Your task to perform on an android device: Go to wifi settings Image 0: 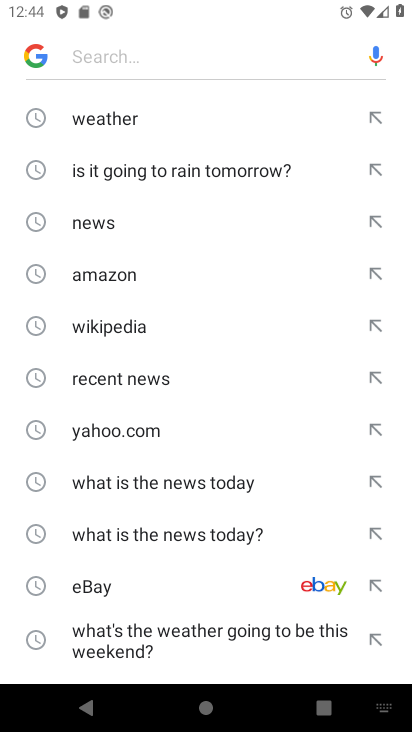
Step 0: press back button
Your task to perform on an android device: Go to wifi settings Image 1: 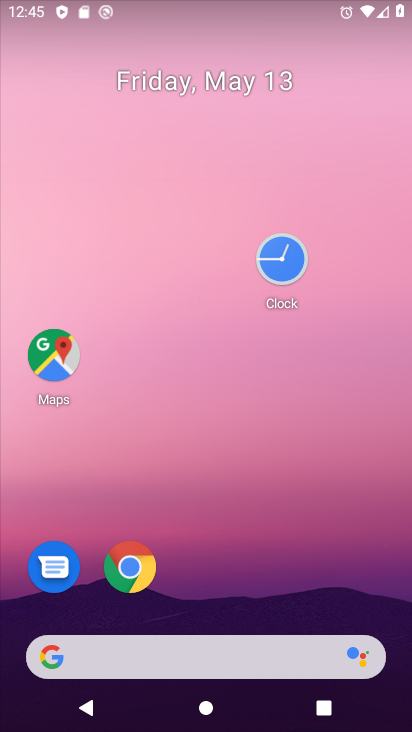
Step 1: drag from (207, 583) to (208, 107)
Your task to perform on an android device: Go to wifi settings Image 2: 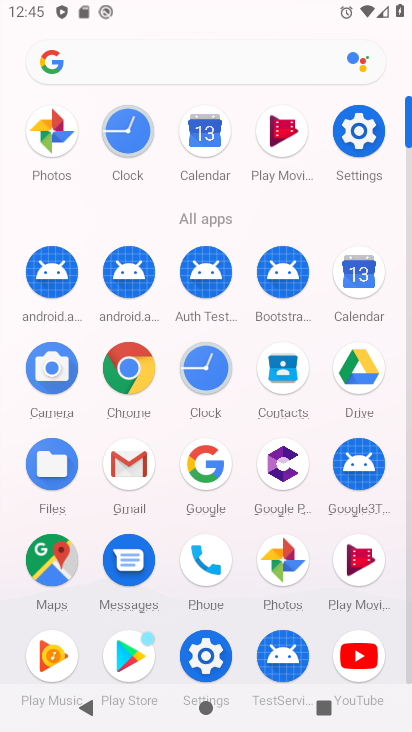
Step 2: click (339, 167)
Your task to perform on an android device: Go to wifi settings Image 3: 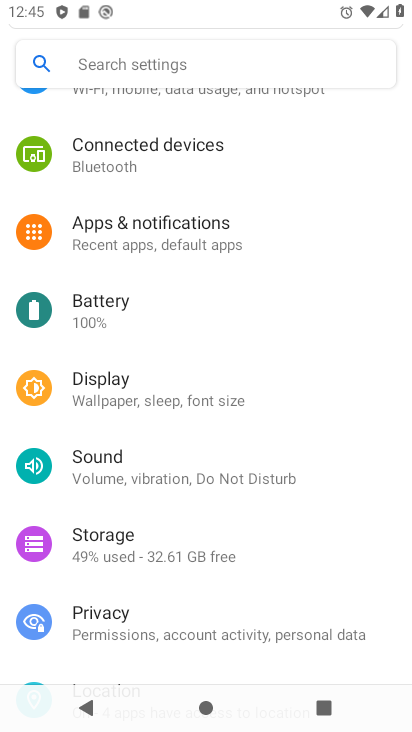
Step 3: click (246, 91)
Your task to perform on an android device: Go to wifi settings Image 4: 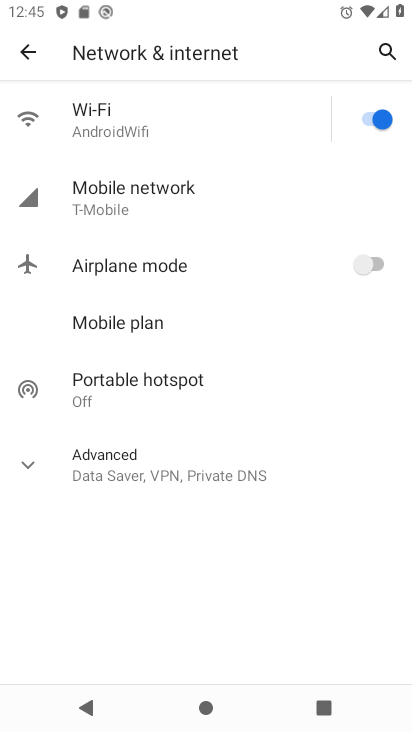
Step 4: click (189, 139)
Your task to perform on an android device: Go to wifi settings Image 5: 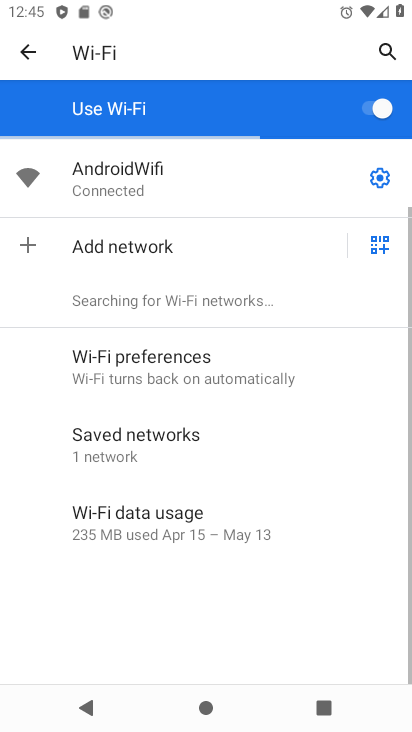
Step 5: task complete